Your task to perform on an android device: Open Google Image 0: 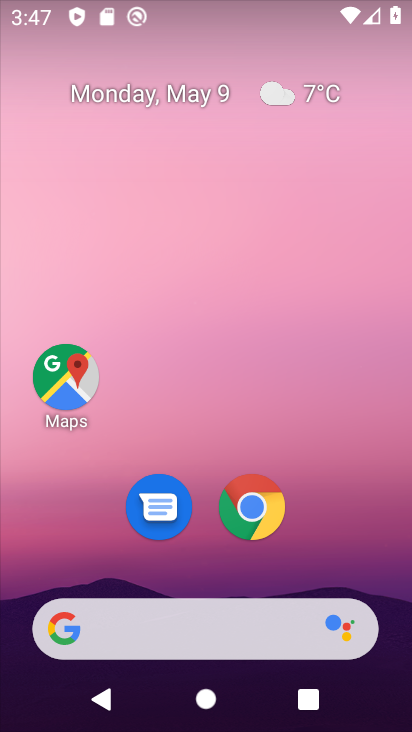
Step 0: drag from (290, 381) to (253, 147)
Your task to perform on an android device: Open Google Image 1: 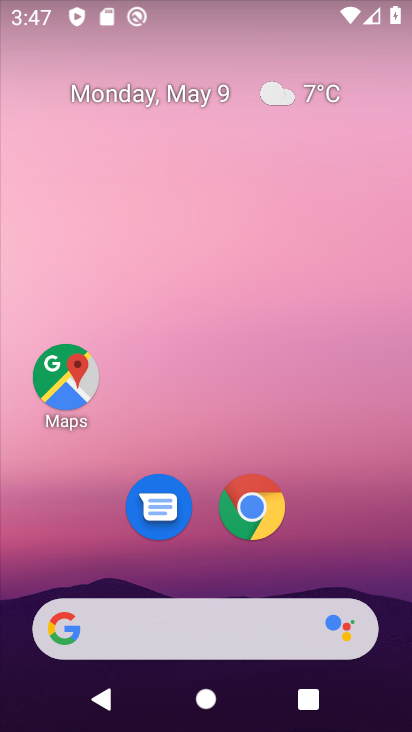
Step 1: drag from (240, 632) to (218, 196)
Your task to perform on an android device: Open Google Image 2: 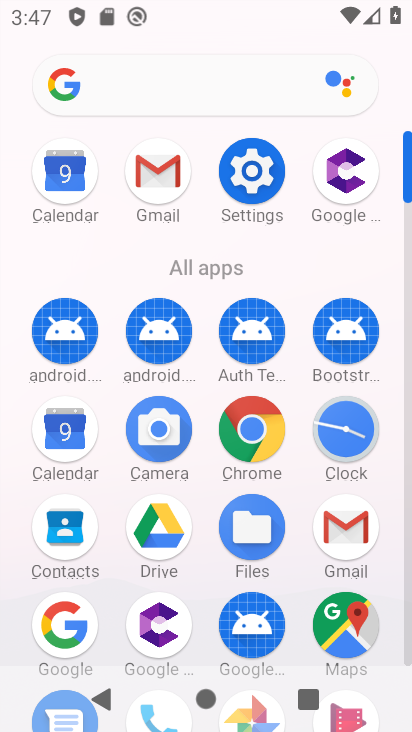
Step 2: click (62, 609)
Your task to perform on an android device: Open Google Image 3: 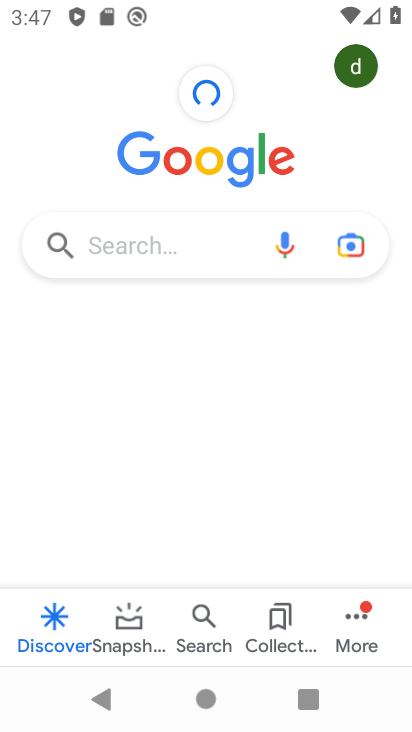
Step 3: task complete